Your task to perform on an android device: set default search engine in the chrome app Image 0: 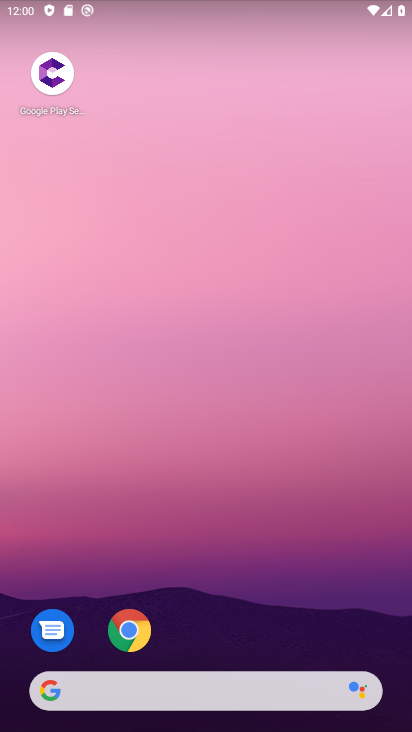
Step 0: press home button
Your task to perform on an android device: set default search engine in the chrome app Image 1: 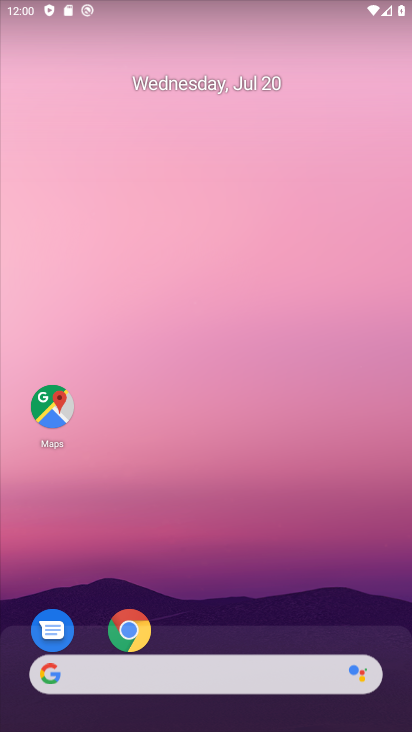
Step 1: drag from (264, 635) to (231, 50)
Your task to perform on an android device: set default search engine in the chrome app Image 2: 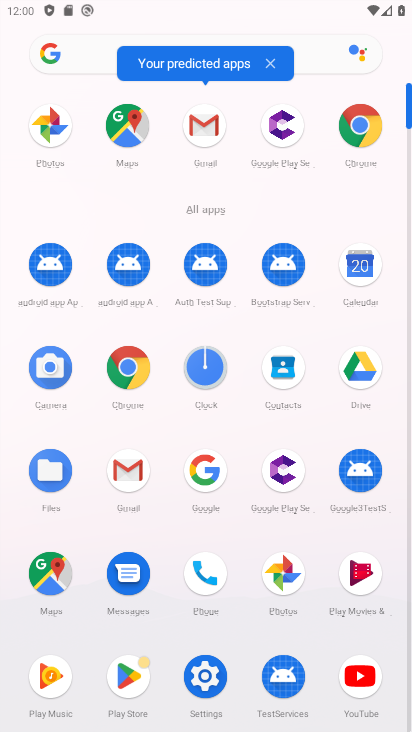
Step 2: click (353, 121)
Your task to perform on an android device: set default search engine in the chrome app Image 3: 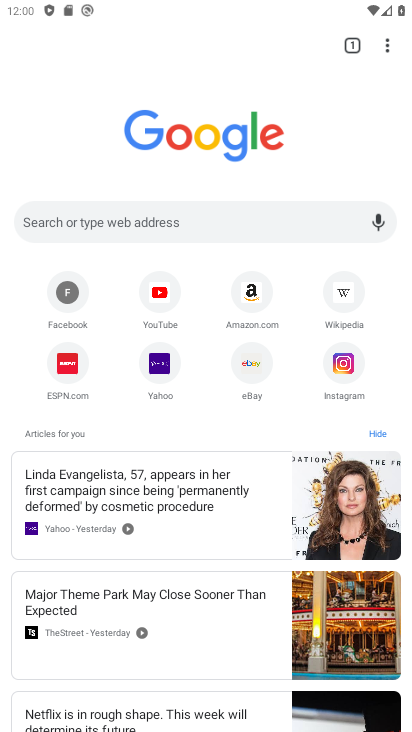
Step 3: drag from (384, 46) to (224, 377)
Your task to perform on an android device: set default search engine in the chrome app Image 4: 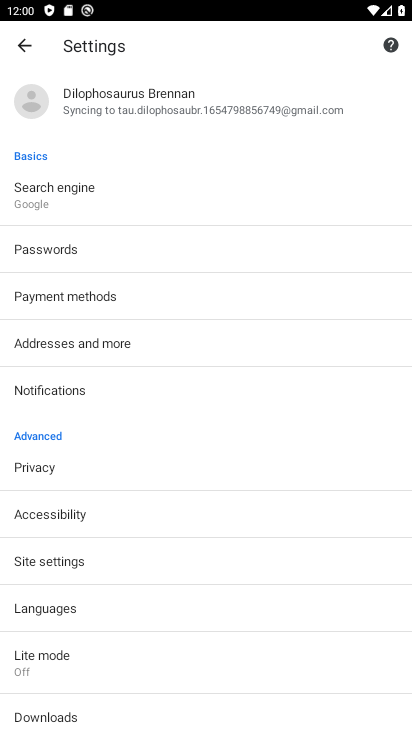
Step 4: click (53, 196)
Your task to perform on an android device: set default search engine in the chrome app Image 5: 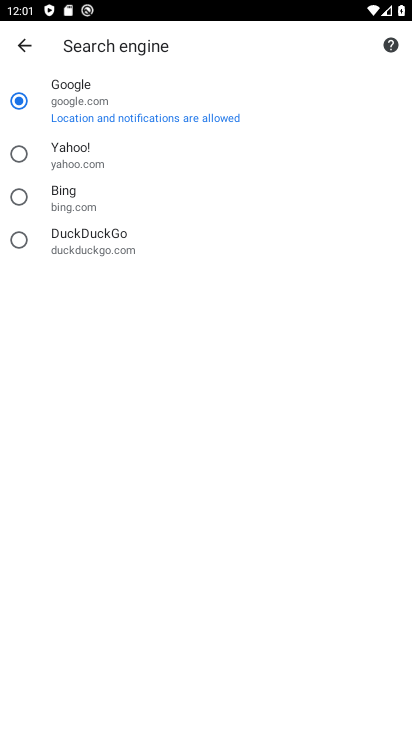
Step 5: task complete